Your task to perform on an android device: What's the weather going to be tomorrow? Image 0: 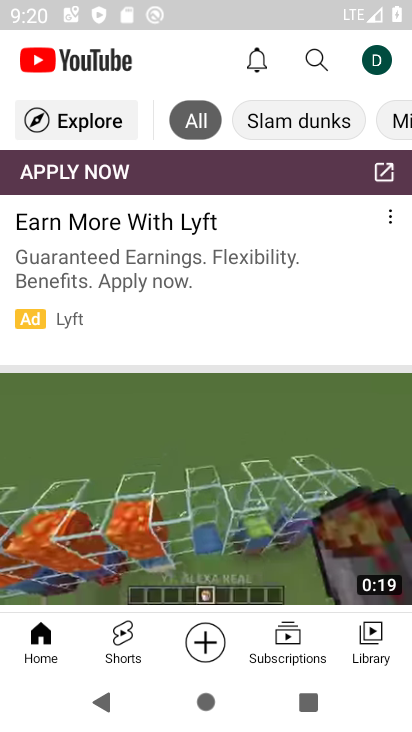
Step 0: press home button
Your task to perform on an android device: What's the weather going to be tomorrow? Image 1: 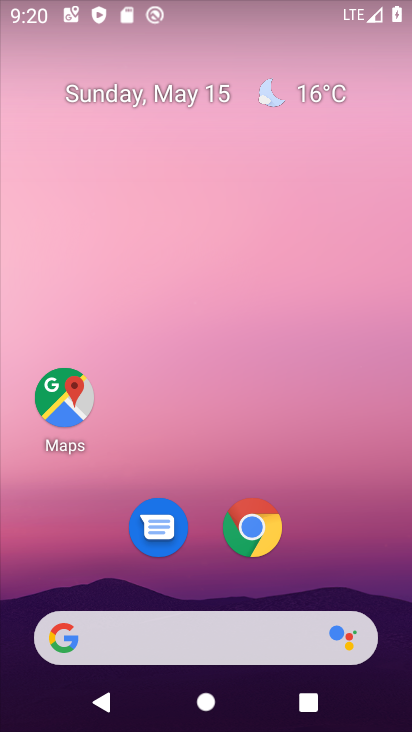
Step 1: click (311, 116)
Your task to perform on an android device: What's the weather going to be tomorrow? Image 2: 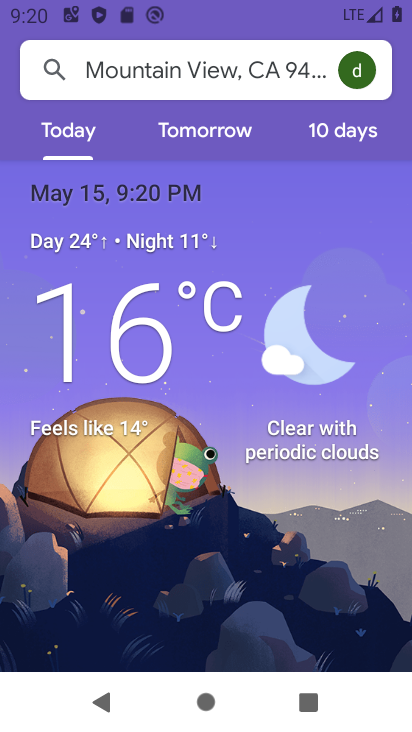
Step 2: click (205, 128)
Your task to perform on an android device: What's the weather going to be tomorrow? Image 3: 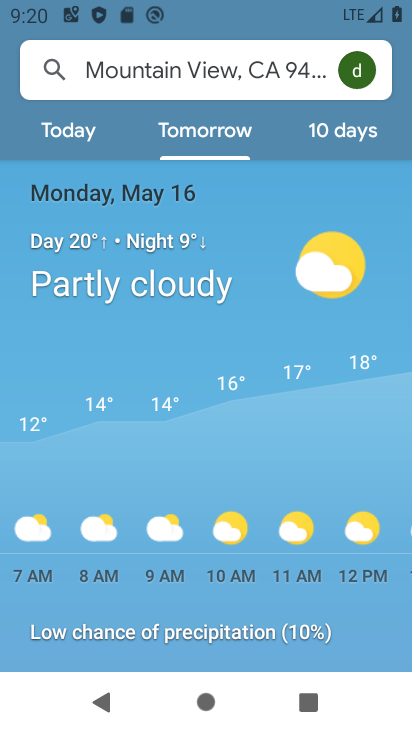
Step 3: task complete